Your task to perform on an android device: Open the Play Movies app and select the watchlist tab. Image 0: 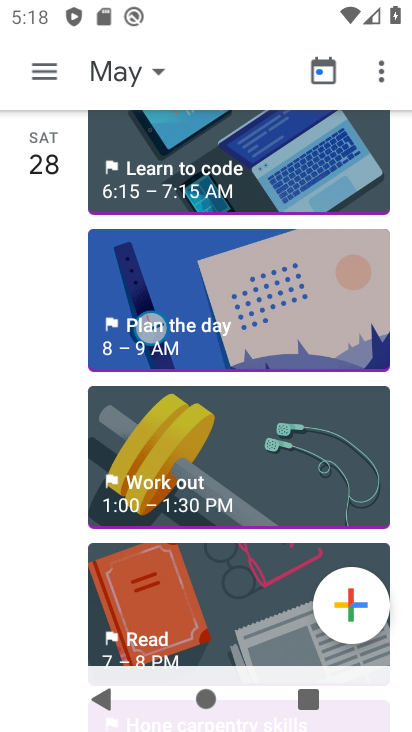
Step 0: press home button
Your task to perform on an android device: Open the Play Movies app and select the watchlist tab. Image 1: 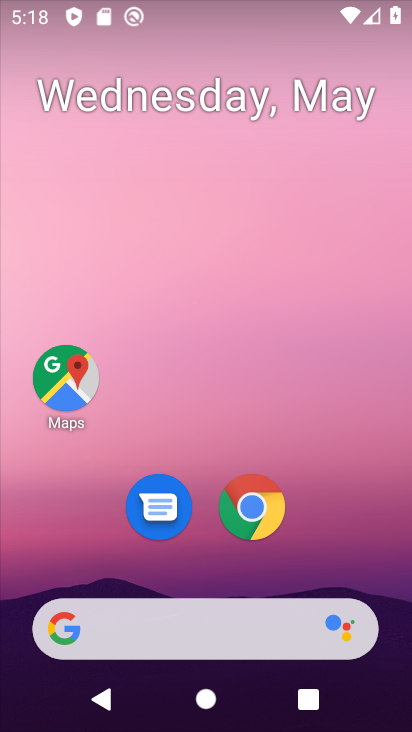
Step 1: drag from (334, 561) to (231, 100)
Your task to perform on an android device: Open the Play Movies app and select the watchlist tab. Image 2: 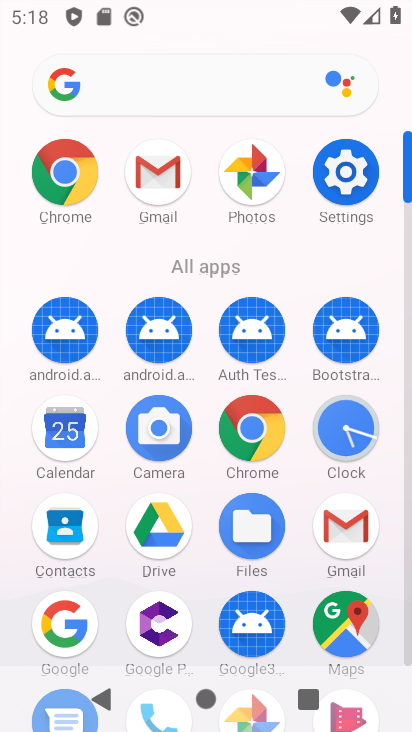
Step 2: drag from (292, 498) to (279, 240)
Your task to perform on an android device: Open the Play Movies app and select the watchlist tab. Image 3: 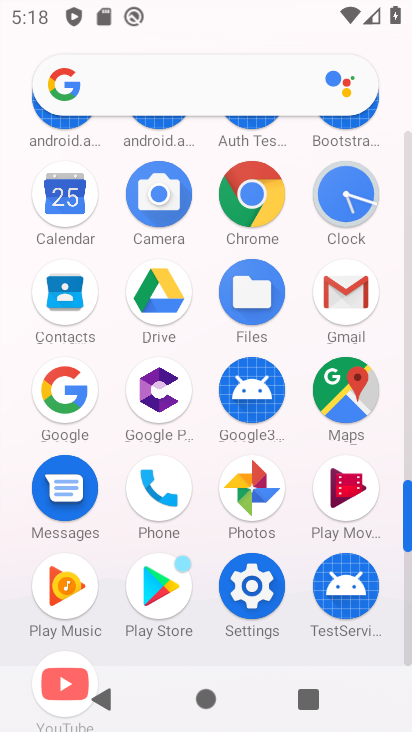
Step 3: click (348, 487)
Your task to perform on an android device: Open the Play Movies app and select the watchlist tab. Image 4: 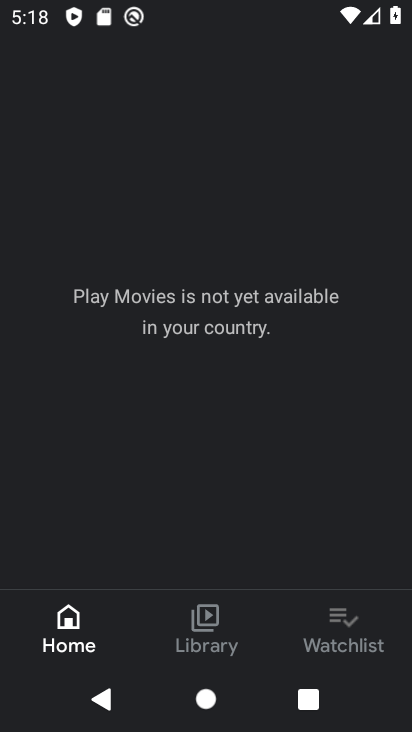
Step 4: click (342, 618)
Your task to perform on an android device: Open the Play Movies app and select the watchlist tab. Image 5: 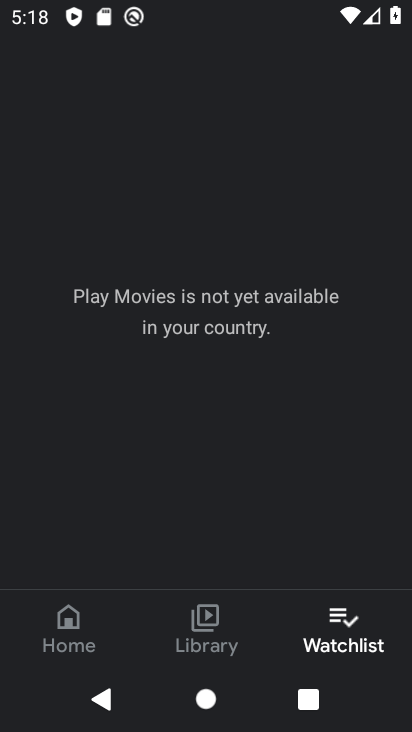
Step 5: task complete